Your task to perform on an android device: What's on my calendar tomorrow? Image 0: 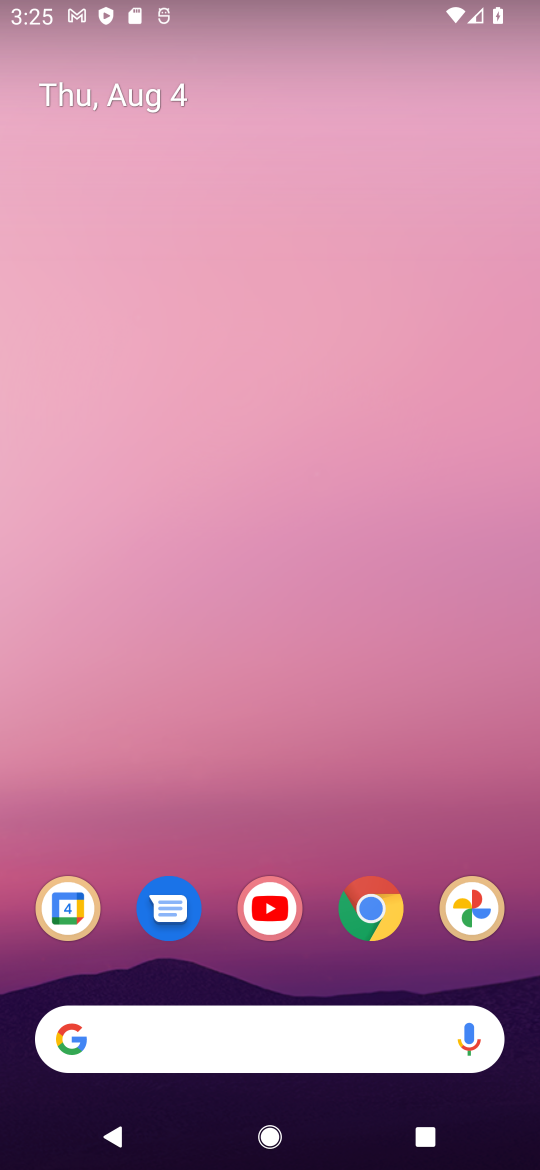
Step 0: click (62, 900)
Your task to perform on an android device: What's on my calendar tomorrow? Image 1: 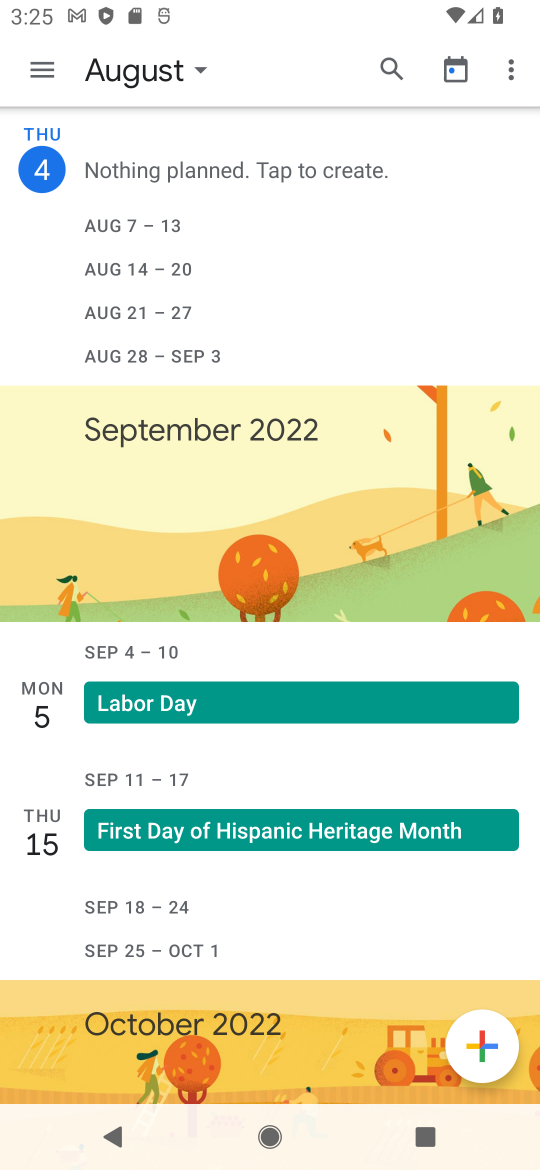
Step 1: click (161, 69)
Your task to perform on an android device: What's on my calendar tomorrow? Image 2: 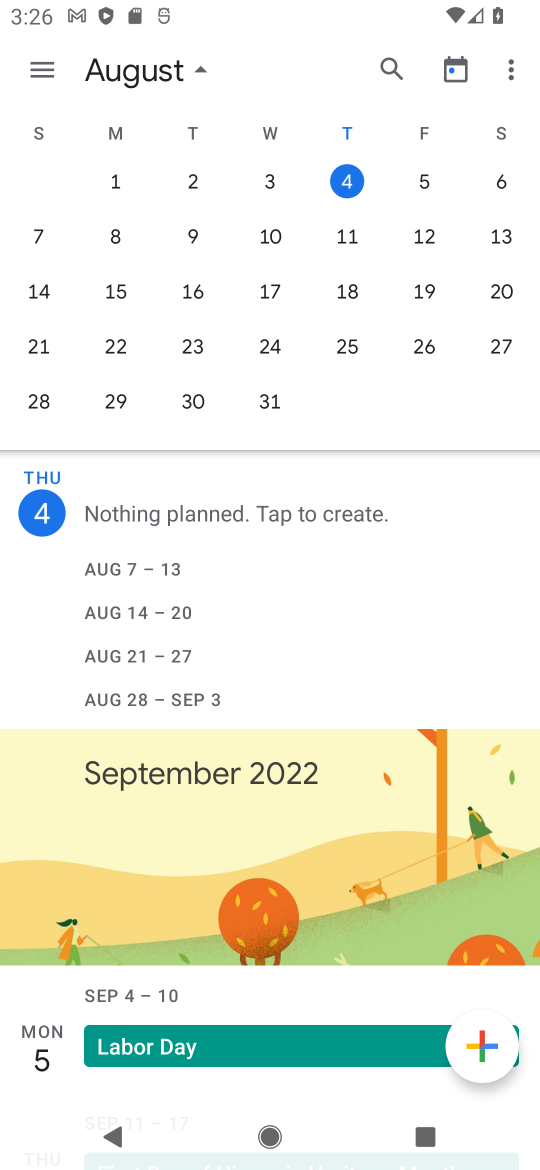
Step 2: click (423, 188)
Your task to perform on an android device: What's on my calendar tomorrow? Image 3: 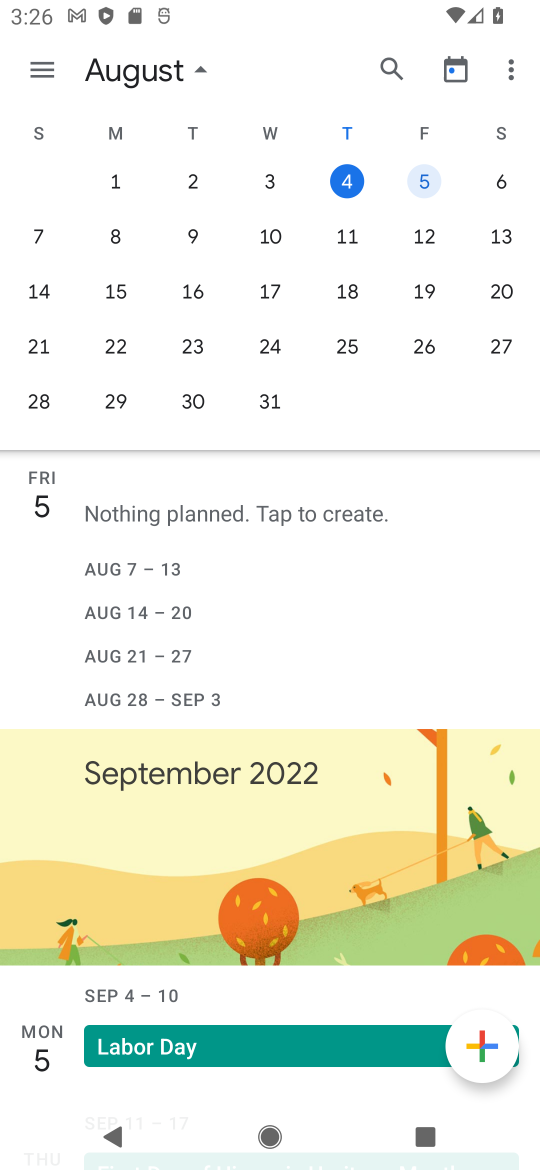
Step 3: task complete